Your task to perform on an android device: turn on wifi Image 0: 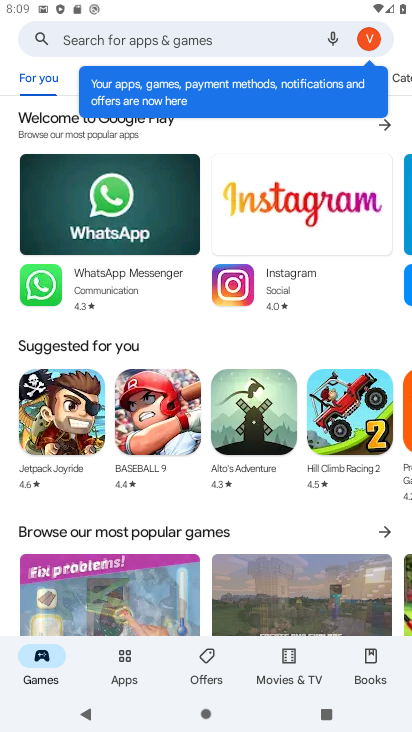
Step 0: press home button
Your task to perform on an android device: turn on wifi Image 1: 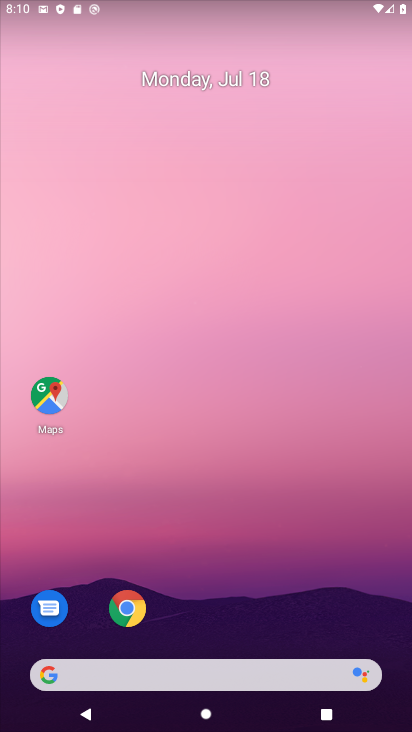
Step 1: drag from (286, 567) to (281, 7)
Your task to perform on an android device: turn on wifi Image 2: 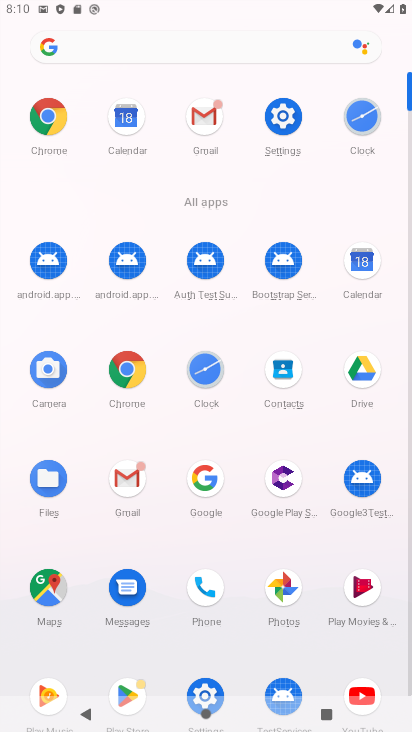
Step 2: click (291, 114)
Your task to perform on an android device: turn on wifi Image 3: 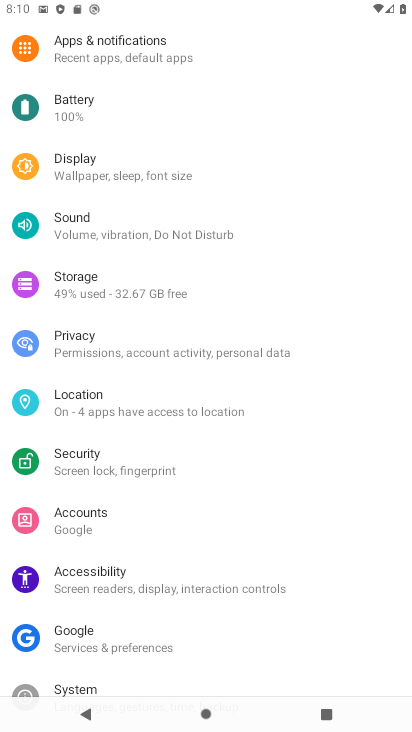
Step 3: drag from (151, 89) to (168, 481)
Your task to perform on an android device: turn on wifi Image 4: 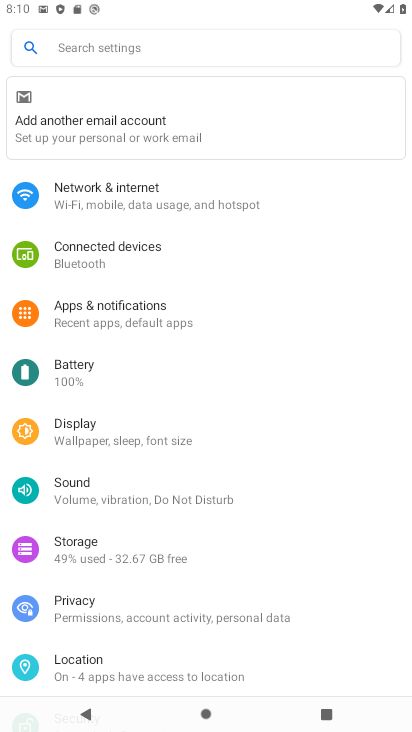
Step 4: click (221, 198)
Your task to perform on an android device: turn on wifi Image 5: 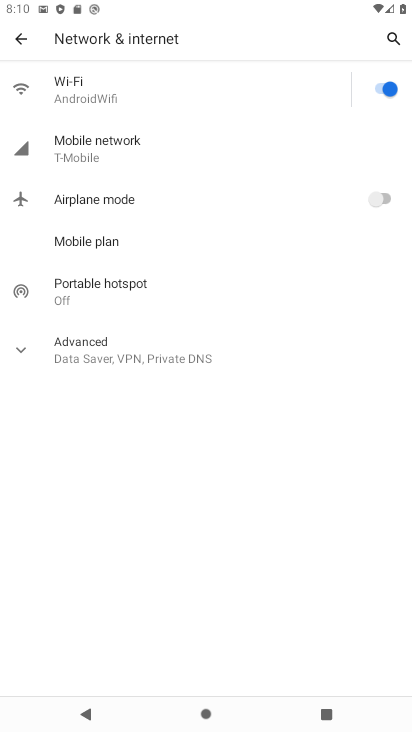
Step 5: task complete